Your task to perform on an android device: Open Wikipedia Image 0: 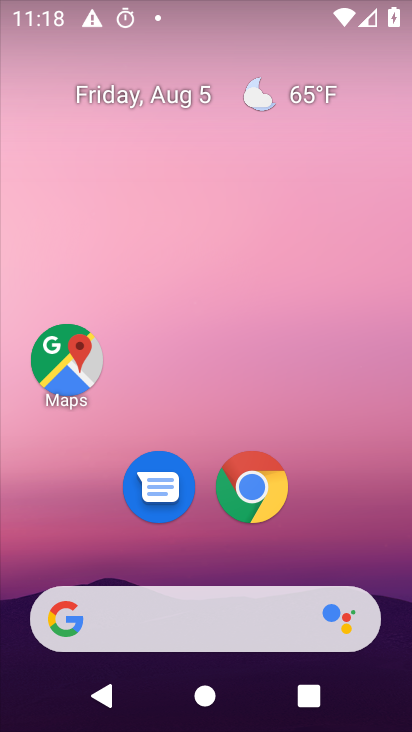
Step 0: click (260, 481)
Your task to perform on an android device: Open Wikipedia Image 1: 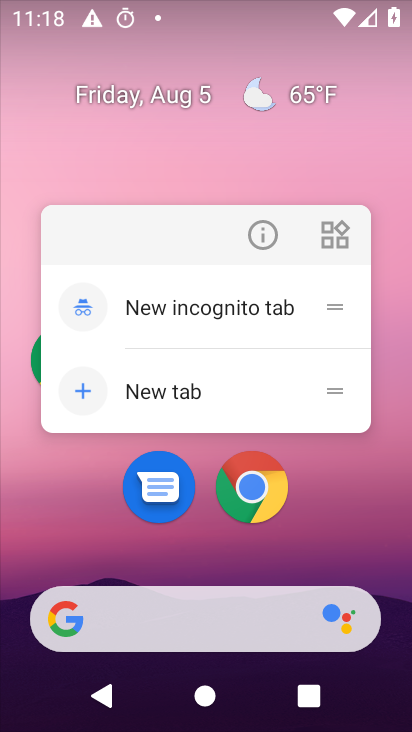
Step 1: click (247, 499)
Your task to perform on an android device: Open Wikipedia Image 2: 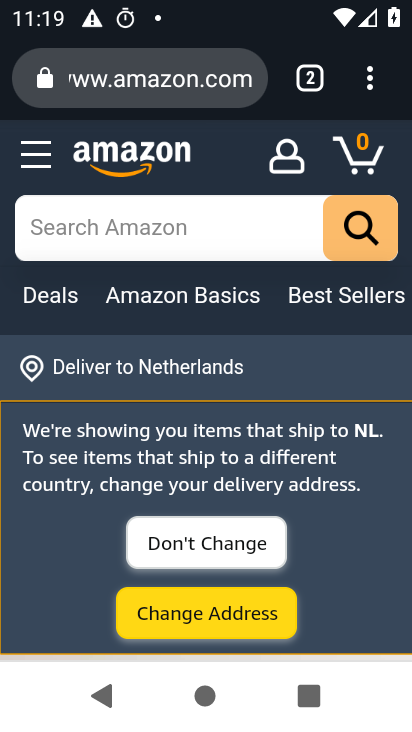
Step 2: click (311, 79)
Your task to perform on an android device: Open Wikipedia Image 3: 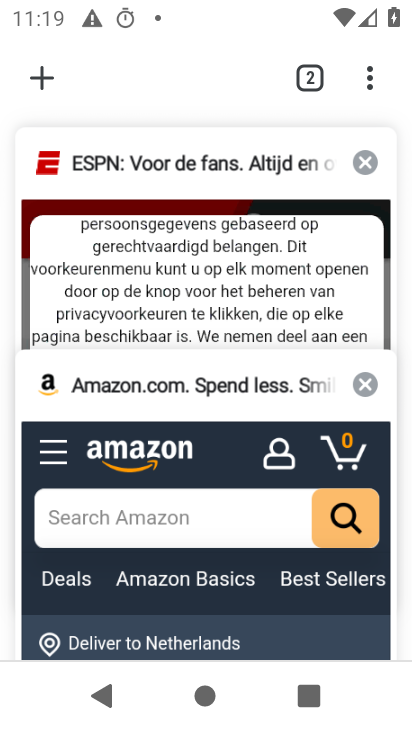
Step 3: click (48, 74)
Your task to perform on an android device: Open Wikipedia Image 4: 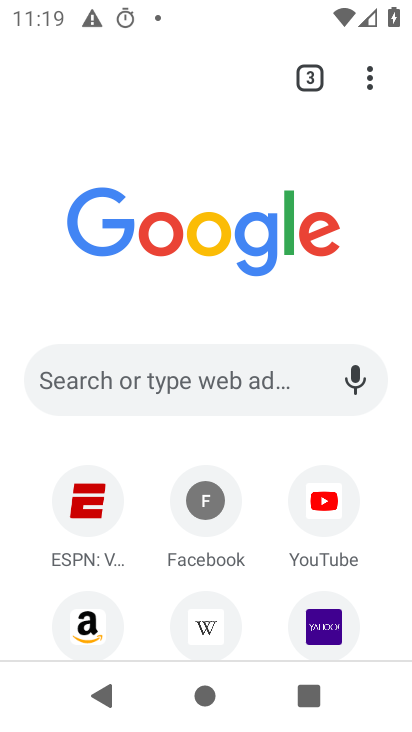
Step 4: click (197, 624)
Your task to perform on an android device: Open Wikipedia Image 5: 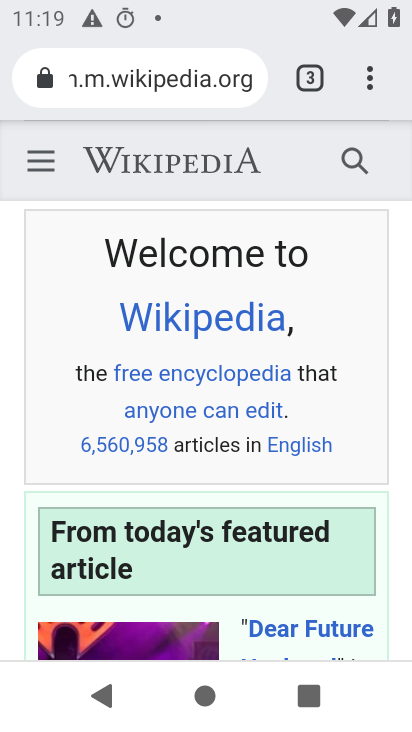
Step 5: task complete